Your task to perform on an android device: Find coffee shops on Maps Image 0: 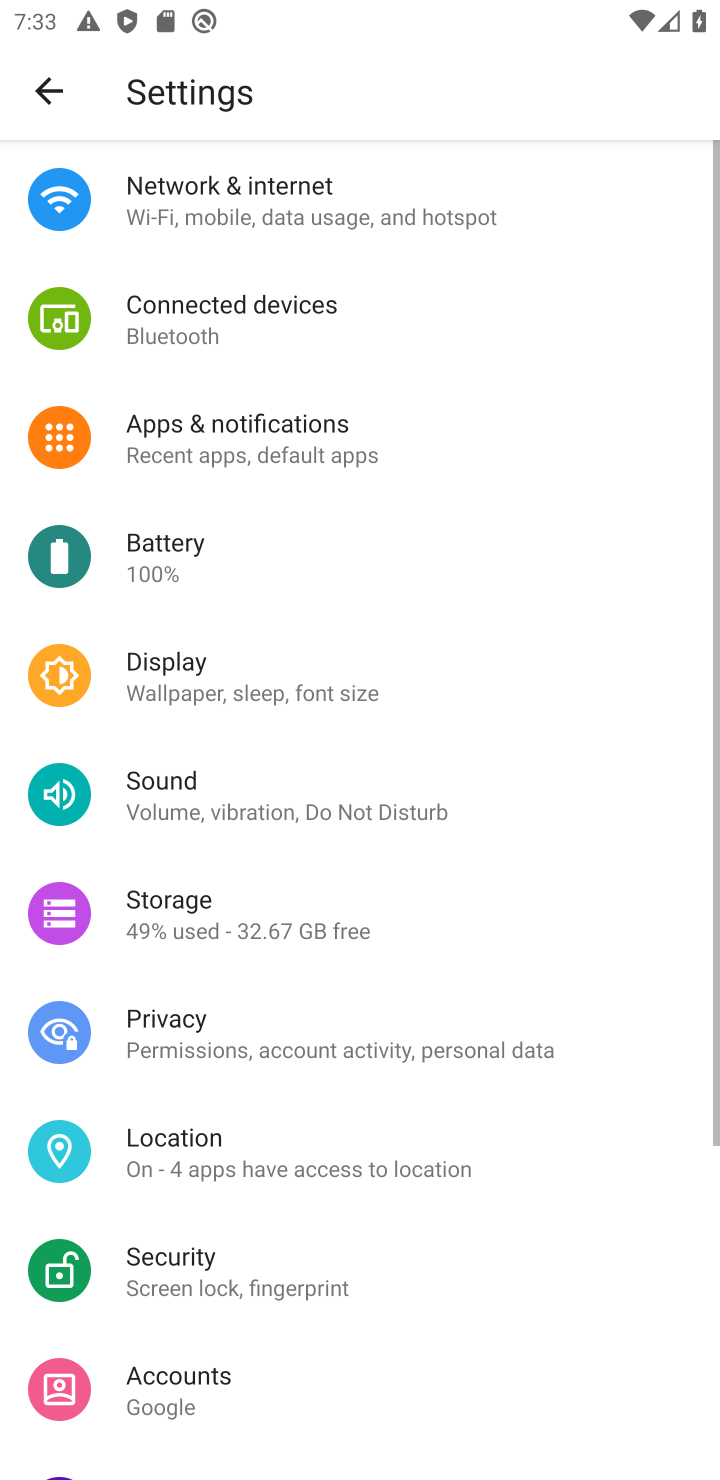
Step 0: press home button
Your task to perform on an android device: Find coffee shops on Maps Image 1: 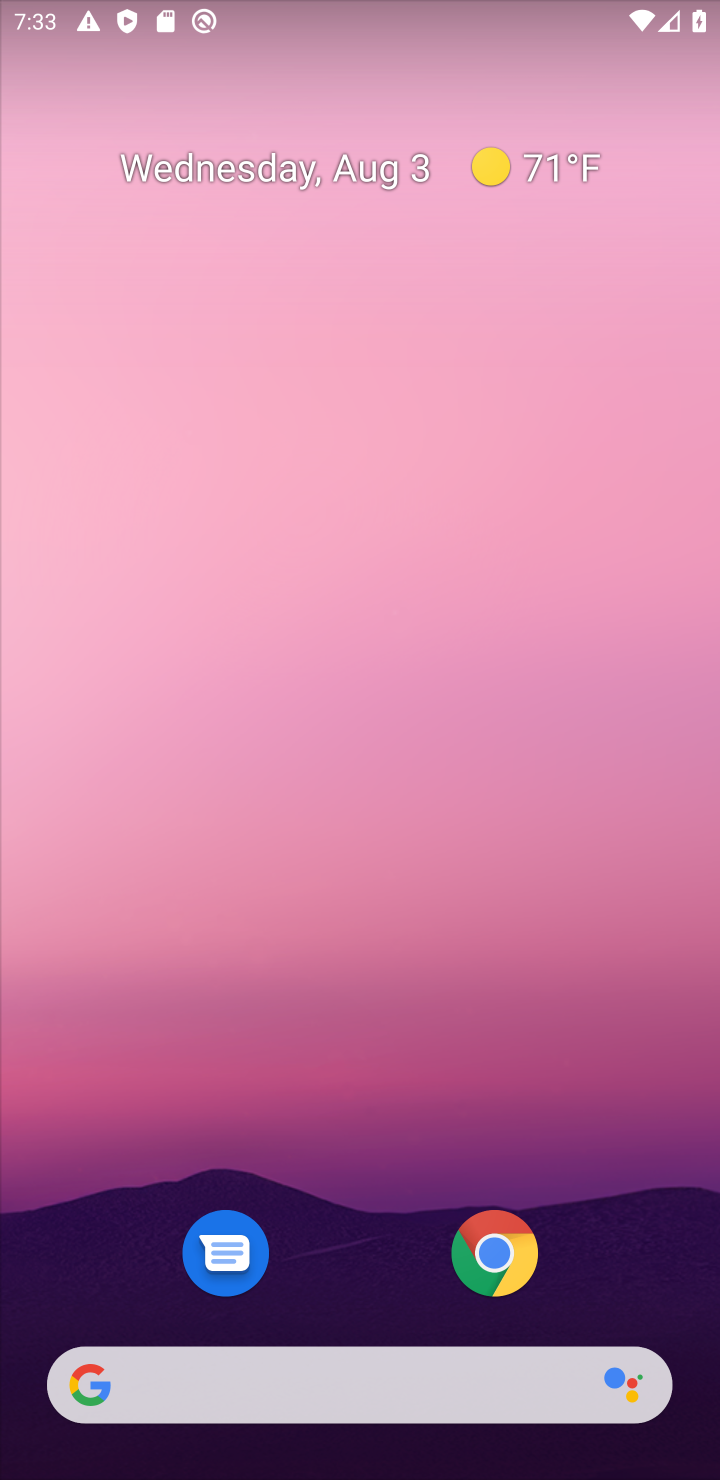
Step 1: drag from (336, 1293) to (370, 296)
Your task to perform on an android device: Find coffee shops on Maps Image 2: 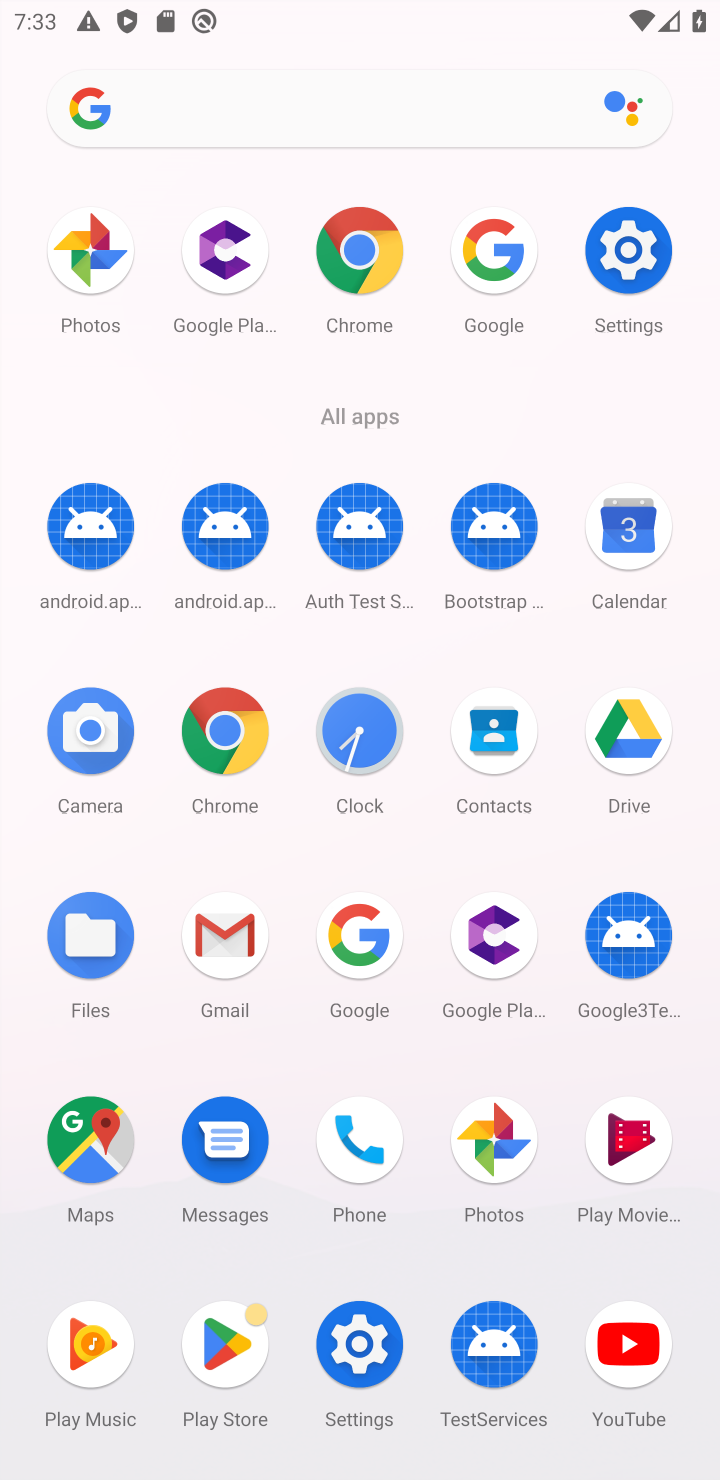
Step 2: click (83, 1145)
Your task to perform on an android device: Find coffee shops on Maps Image 3: 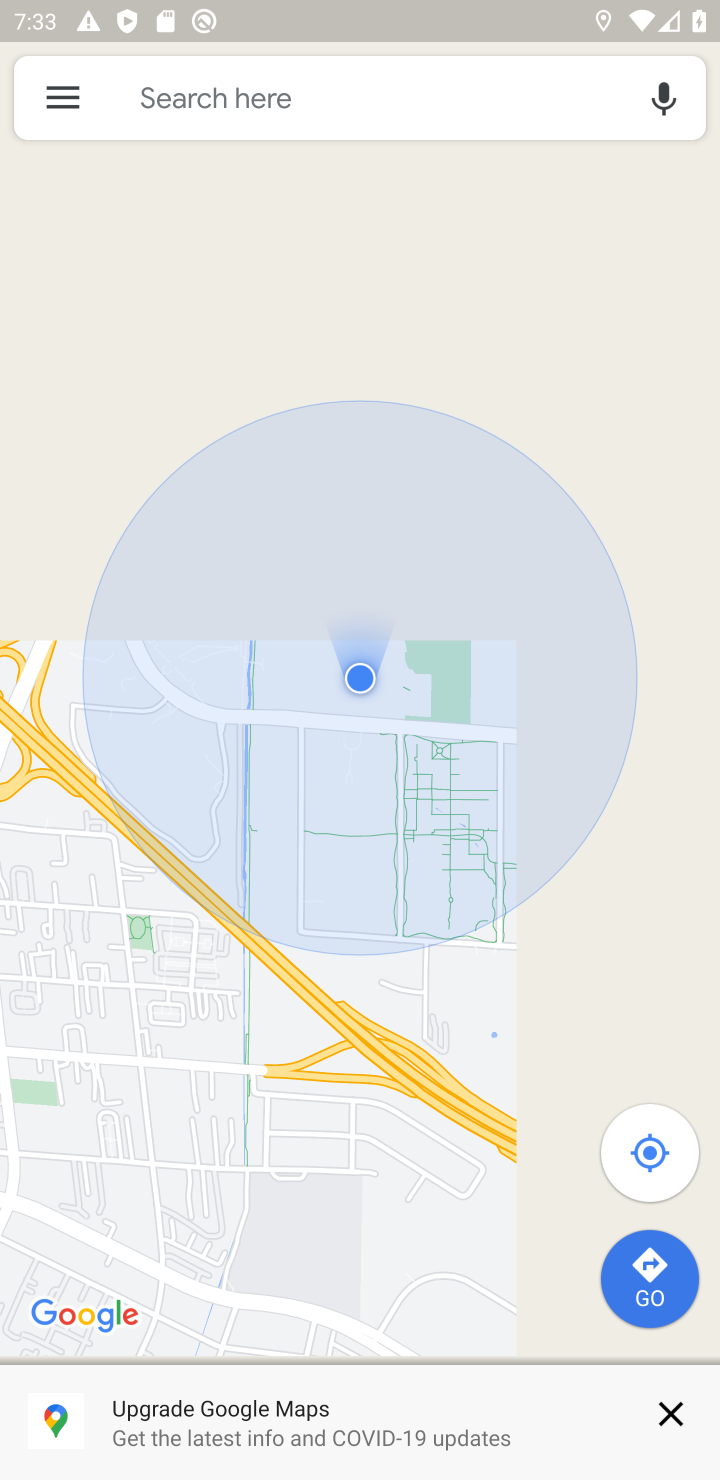
Step 3: click (222, 97)
Your task to perform on an android device: Find coffee shops on Maps Image 4: 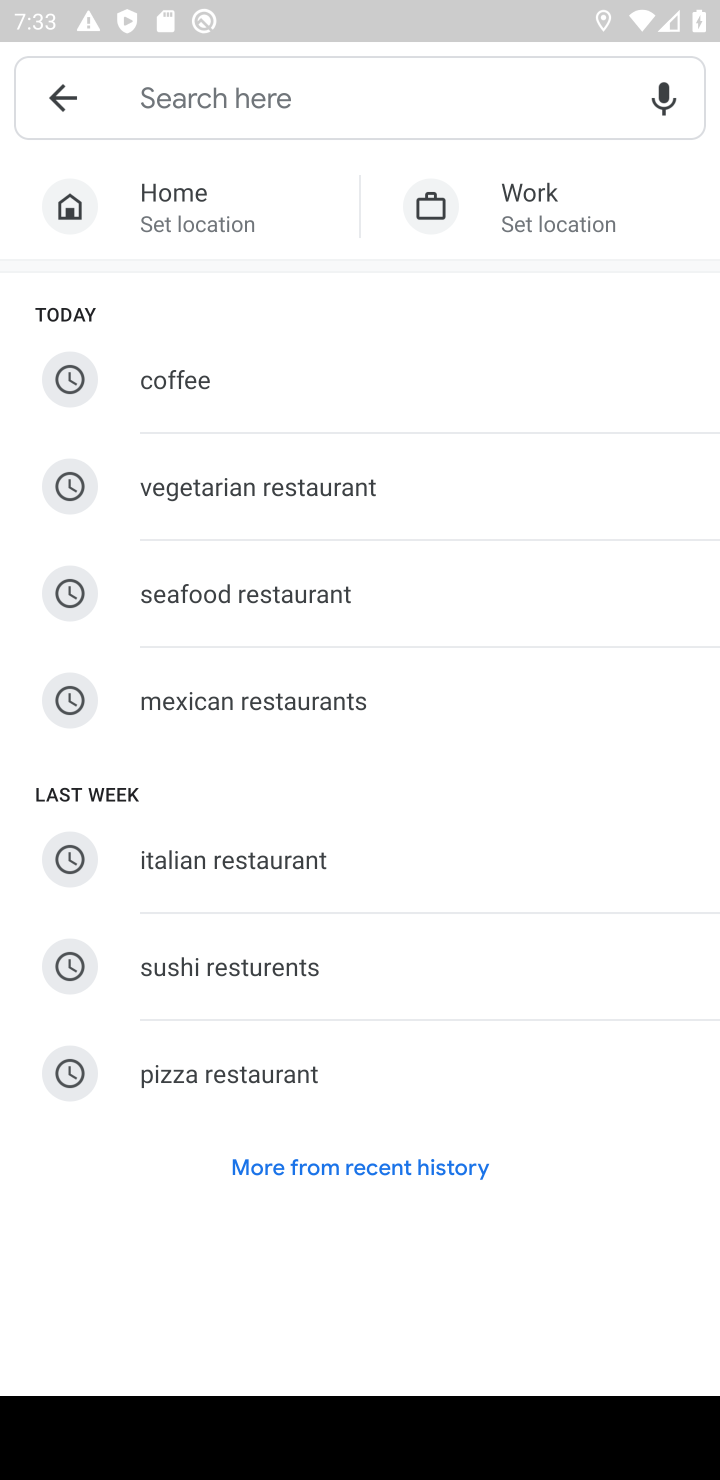
Step 4: click (214, 374)
Your task to perform on an android device: Find coffee shops on Maps Image 5: 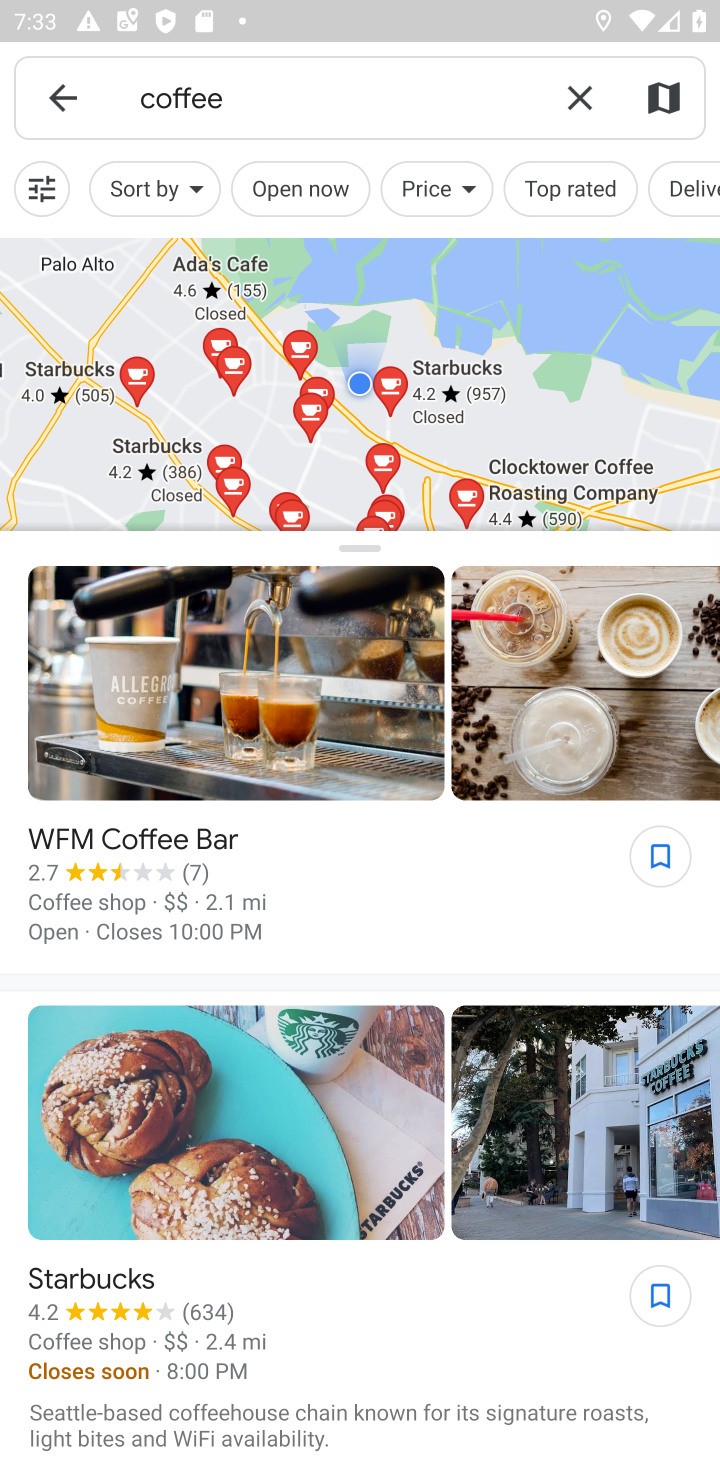
Step 5: task complete